Your task to perform on an android device: check google app version Image 0: 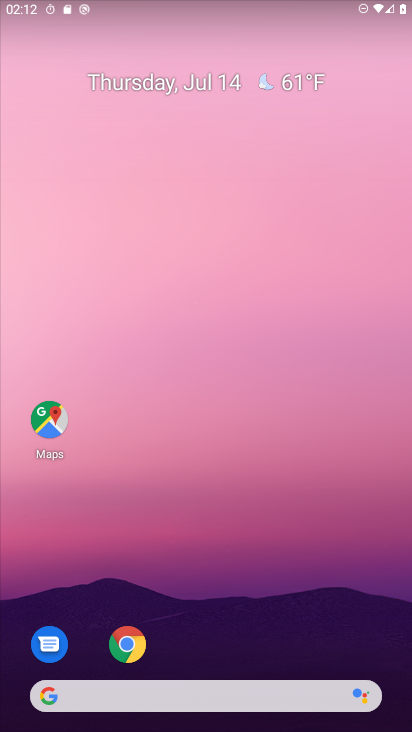
Step 0: drag from (264, 624) to (218, 94)
Your task to perform on an android device: check google app version Image 1: 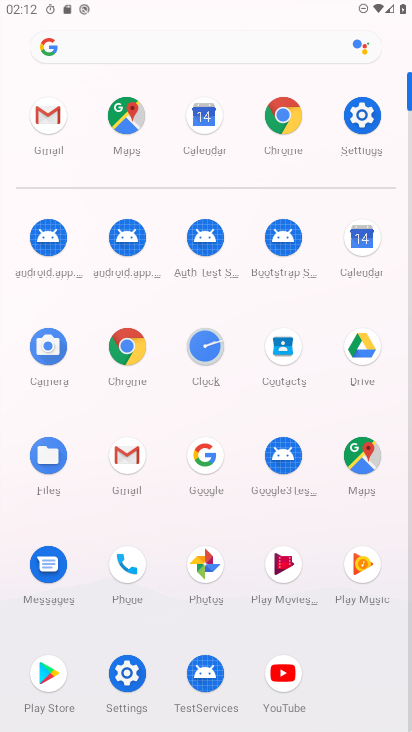
Step 1: click (203, 466)
Your task to perform on an android device: check google app version Image 2: 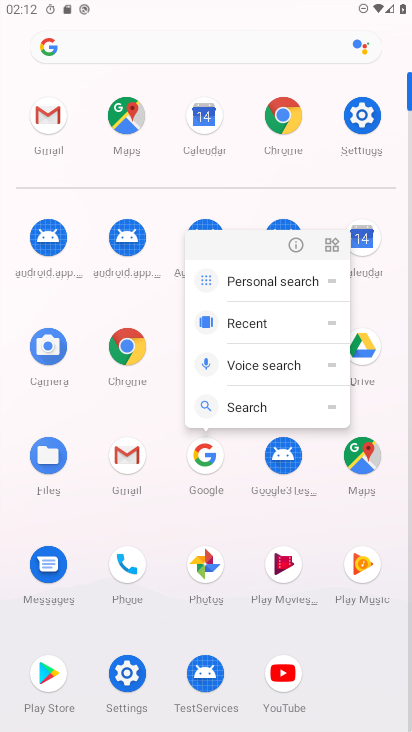
Step 2: click (298, 245)
Your task to perform on an android device: check google app version Image 3: 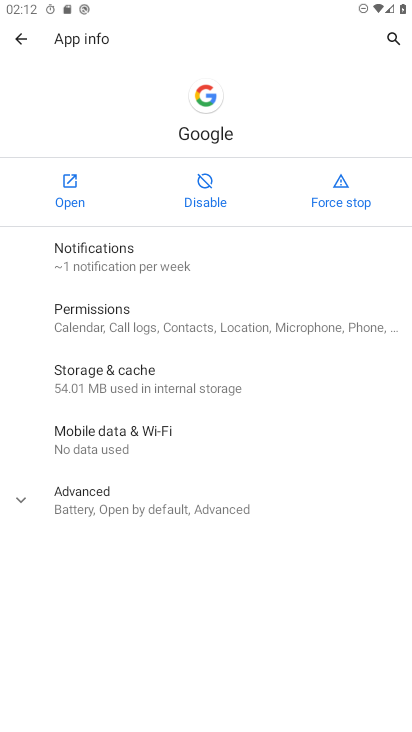
Step 3: click (183, 505)
Your task to perform on an android device: check google app version Image 4: 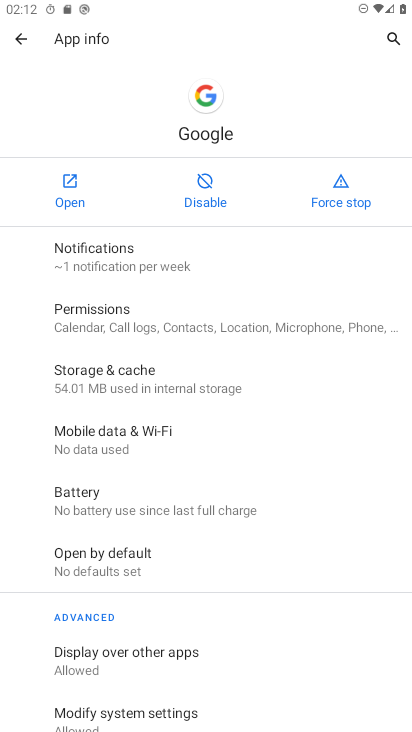
Step 4: task complete